Your task to perform on an android device: Open Google Maps and go to "Timeline" Image 0: 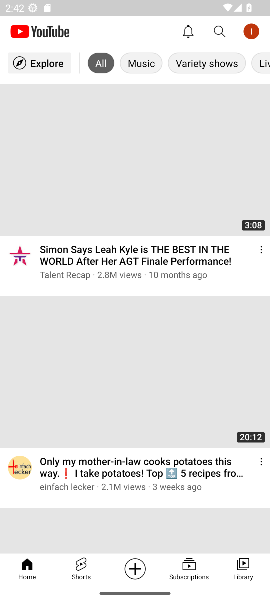
Step 0: press home button
Your task to perform on an android device: Open Google Maps and go to "Timeline" Image 1: 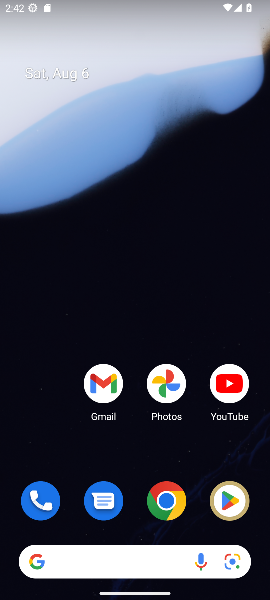
Step 1: drag from (128, 333) to (154, 53)
Your task to perform on an android device: Open Google Maps and go to "Timeline" Image 2: 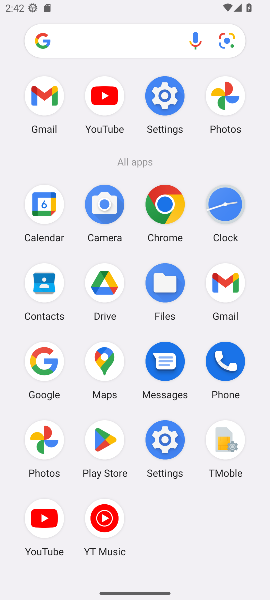
Step 2: click (109, 351)
Your task to perform on an android device: Open Google Maps and go to "Timeline" Image 3: 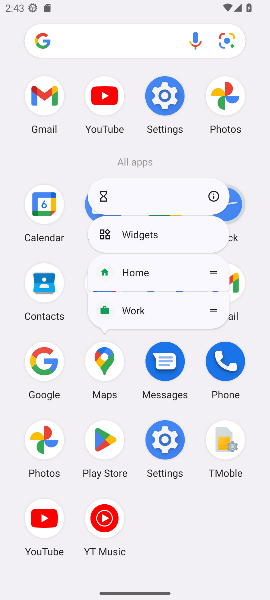
Step 3: click (105, 359)
Your task to perform on an android device: Open Google Maps and go to "Timeline" Image 4: 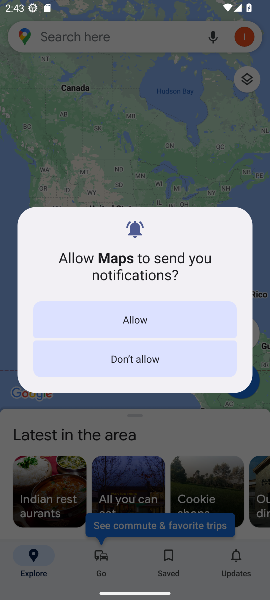
Step 4: click (240, 499)
Your task to perform on an android device: Open Google Maps and go to "Timeline" Image 5: 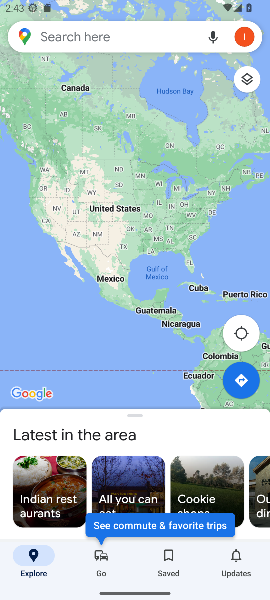
Step 5: click (25, 27)
Your task to perform on an android device: Open Google Maps and go to "Timeline" Image 6: 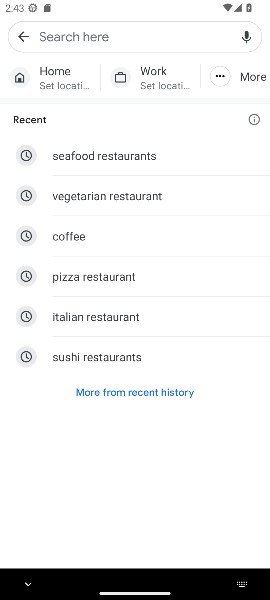
Step 6: click (17, 30)
Your task to perform on an android device: Open Google Maps and go to "Timeline" Image 7: 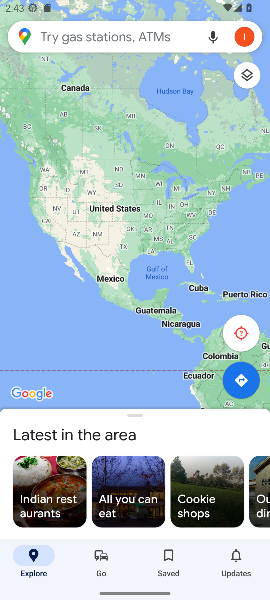
Step 7: click (248, 35)
Your task to perform on an android device: Open Google Maps and go to "Timeline" Image 8: 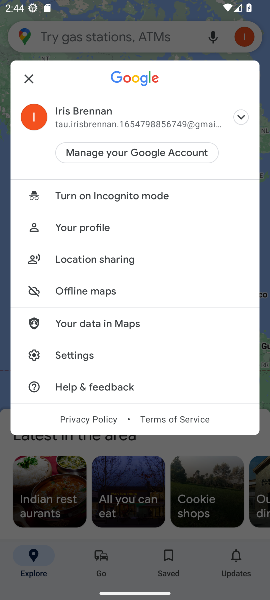
Step 8: click (141, 500)
Your task to perform on an android device: Open Google Maps and go to "Timeline" Image 9: 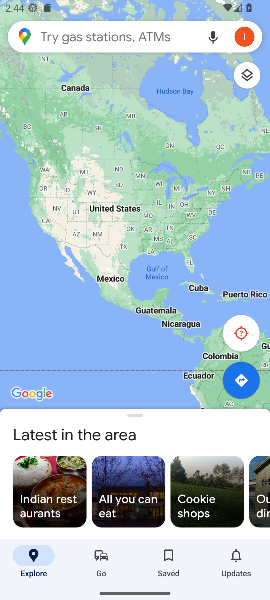
Step 9: task complete